Your task to perform on an android device: Go to sound settings Image 0: 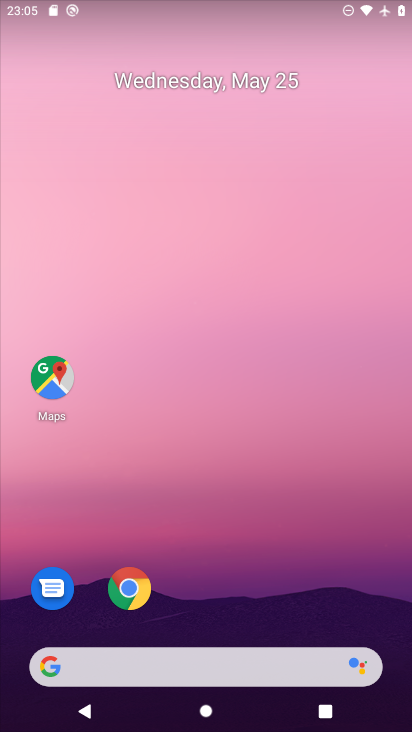
Step 0: drag from (332, 592) to (291, 192)
Your task to perform on an android device: Go to sound settings Image 1: 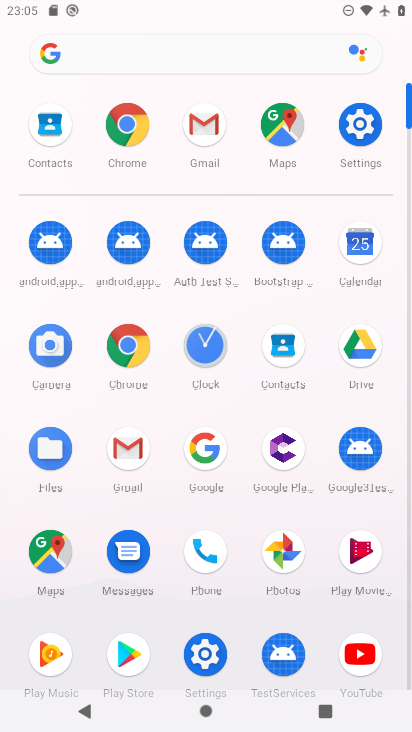
Step 1: click (353, 135)
Your task to perform on an android device: Go to sound settings Image 2: 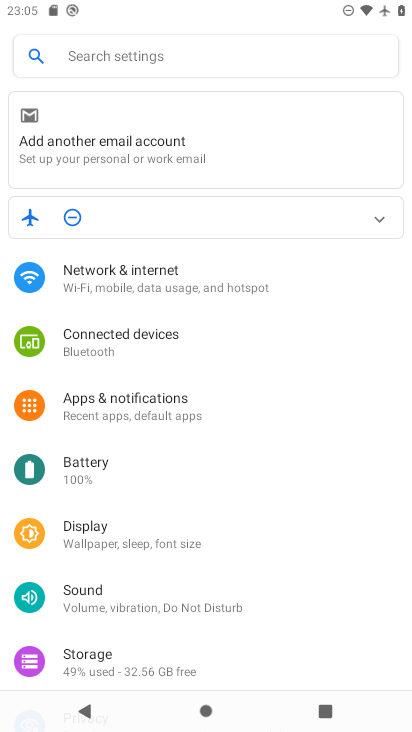
Step 2: click (133, 590)
Your task to perform on an android device: Go to sound settings Image 3: 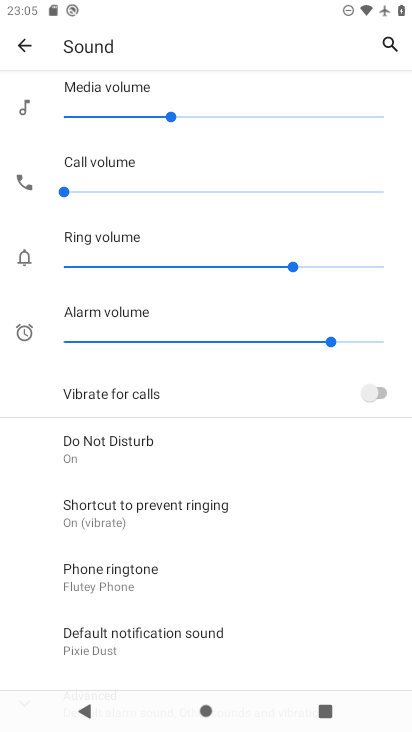
Step 3: task complete